Your task to perform on an android device: turn off airplane mode Image 0: 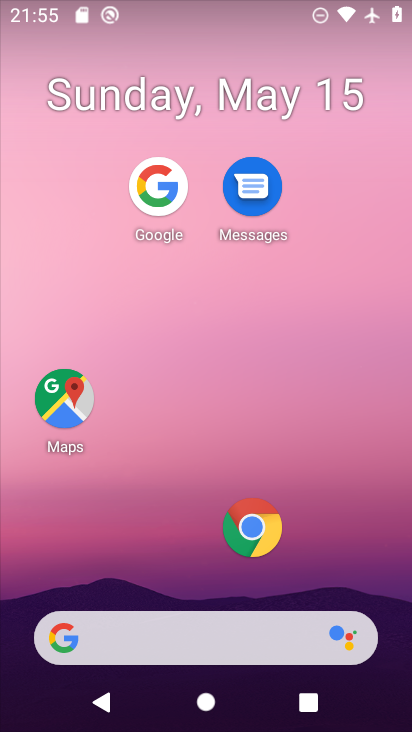
Step 0: drag from (184, 640) to (253, 122)
Your task to perform on an android device: turn off airplane mode Image 1: 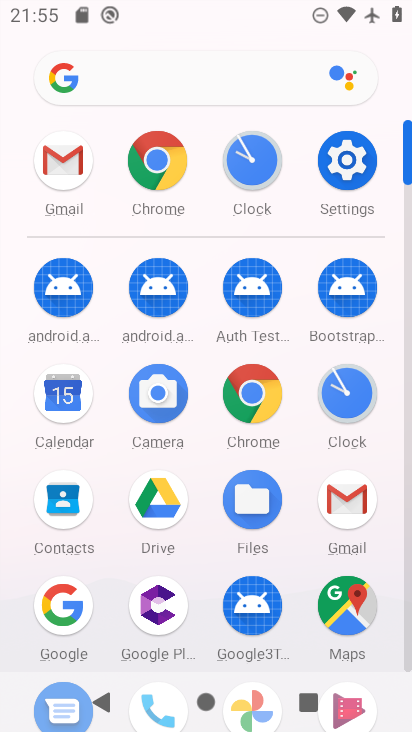
Step 1: click (342, 181)
Your task to perform on an android device: turn off airplane mode Image 2: 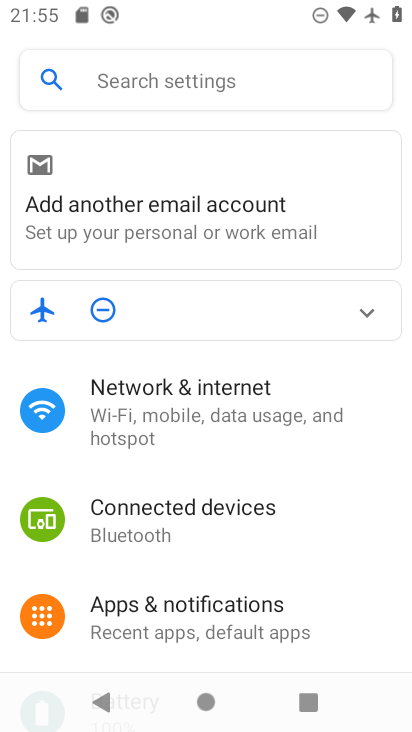
Step 2: click (196, 408)
Your task to perform on an android device: turn off airplane mode Image 3: 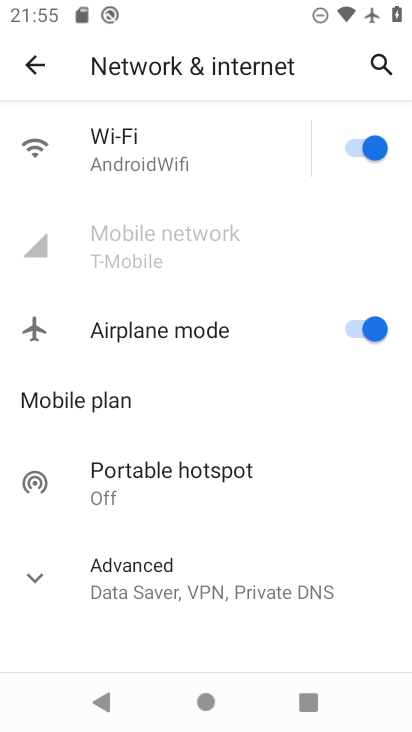
Step 3: click (362, 325)
Your task to perform on an android device: turn off airplane mode Image 4: 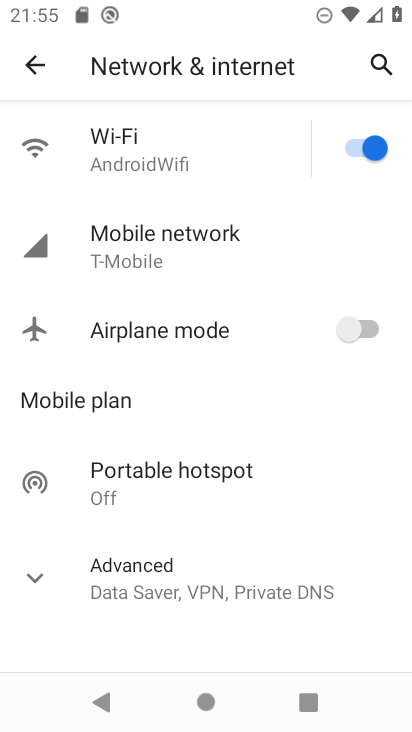
Step 4: task complete